Your task to perform on an android device: change the clock display to digital Image 0: 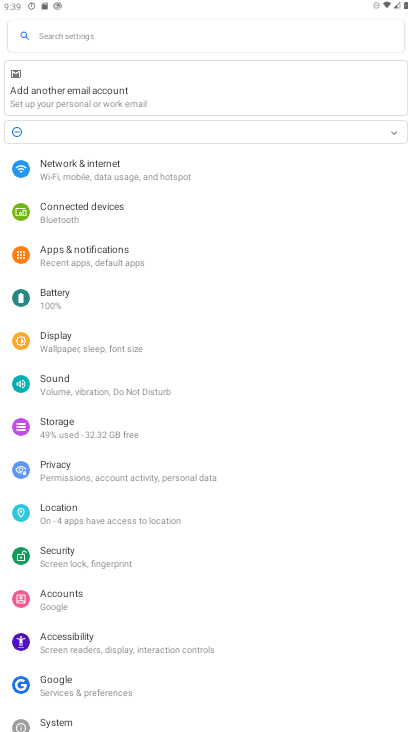
Step 0: press home button
Your task to perform on an android device: change the clock display to digital Image 1: 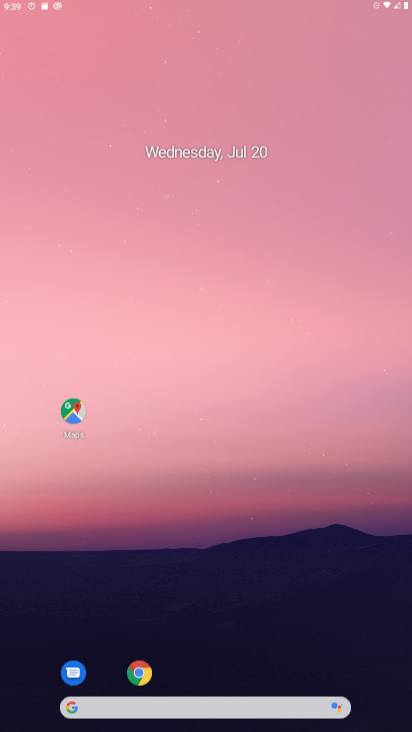
Step 1: drag from (363, 656) to (180, 23)
Your task to perform on an android device: change the clock display to digital Image 2: 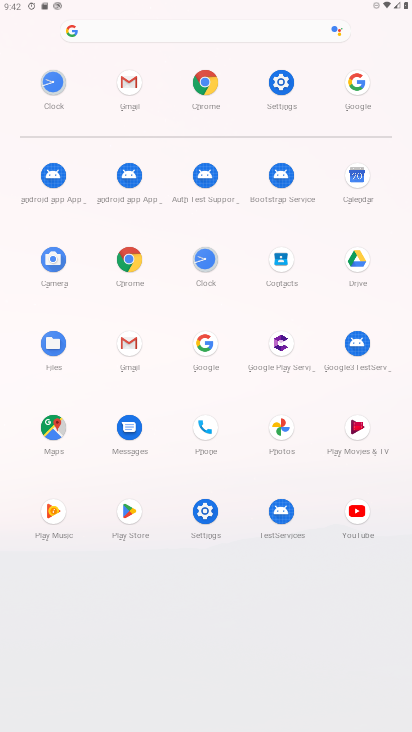
Step 2: click (200, 258)
Your task to perform on an android device: change the clock display to digital Image 3: 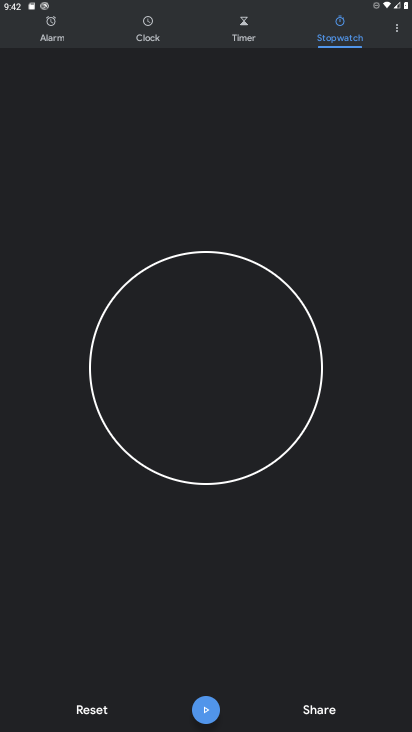
Step 3: click (400, 27)
Your task to perform on an android device: change the clock display to digital Image 4: 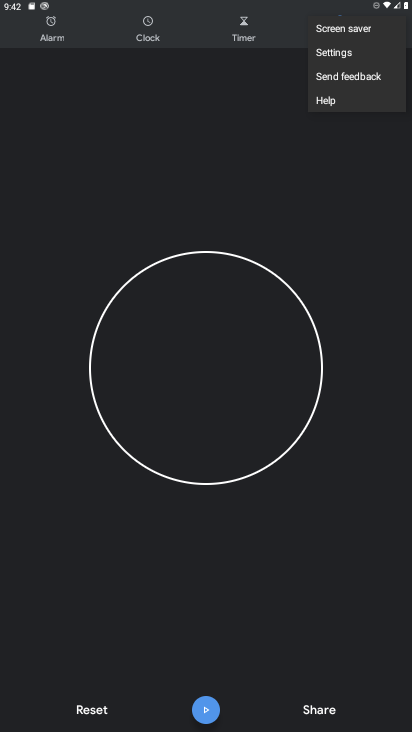
Step 4: click (349, 48)
Your task to perform on an android device: change the clock display to digital Image 5: 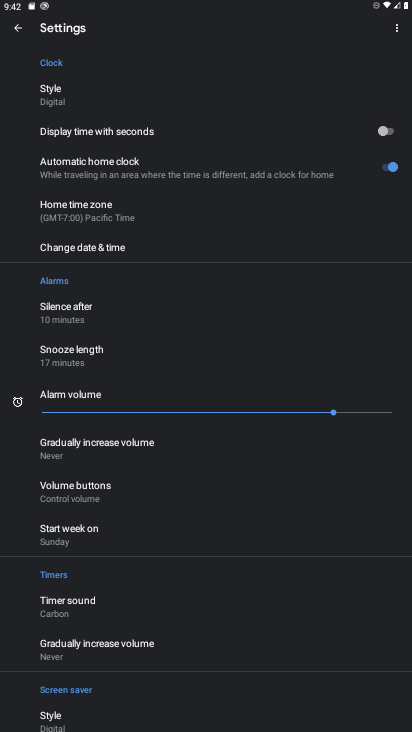
Step 5: task complete